Your task to perform on an android device: Turn on the flashlight Image 0: 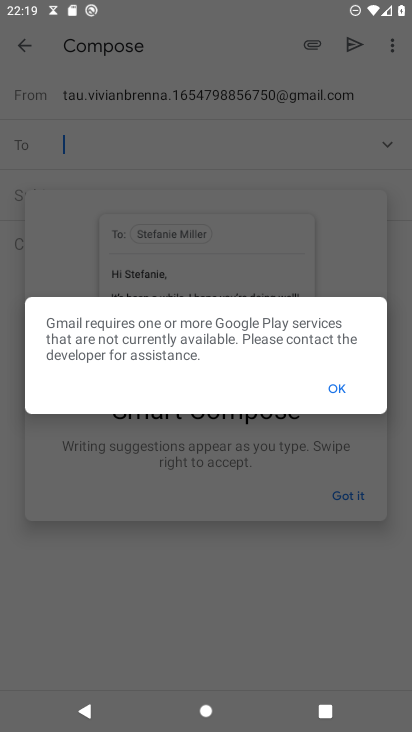
Step 0: press home button
Your task to perform on an android device: Turn on the flashlight Image 1: 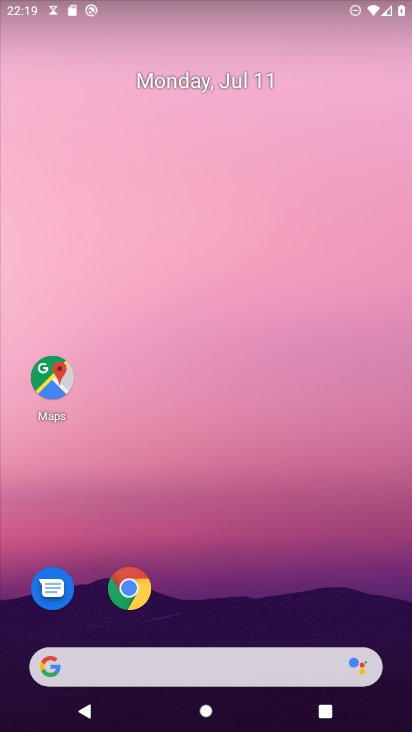
Step 1: task complete